Your task to perform on an android device: change notifications settings Image 0: 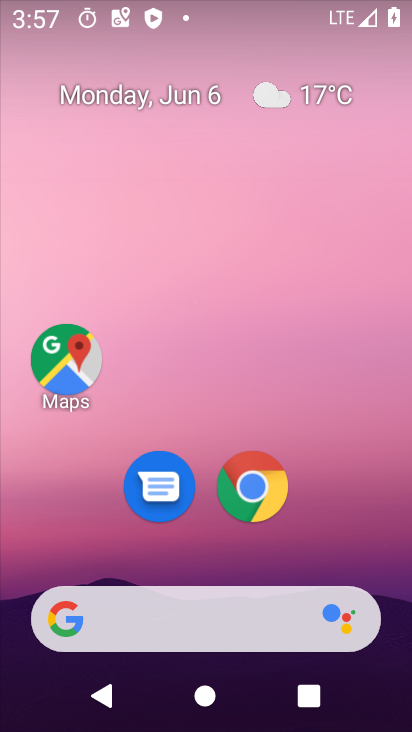
Step 0: drag from (356, 525) to (321, 91)
Your task to perform on an android device: change notifications settings Image 1: 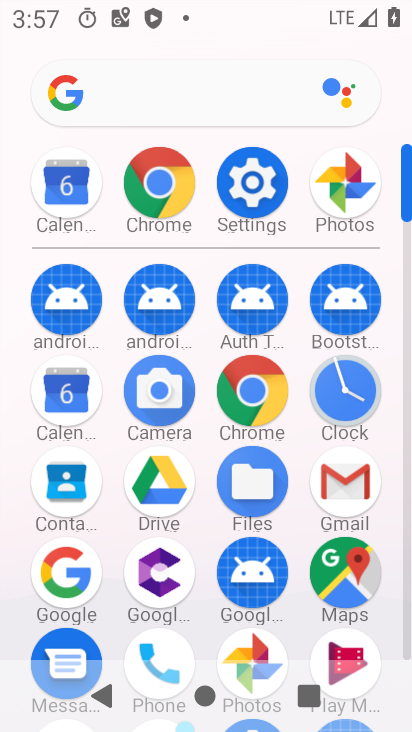
Step 1: click (262, 182)
Your task to perform on an android device: change notifications settings Image 2: 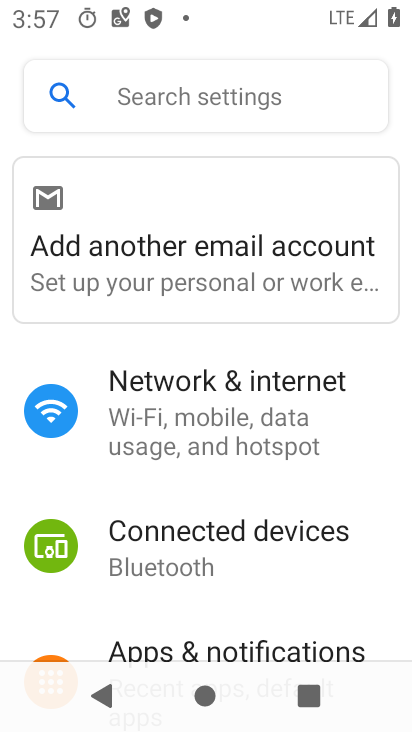
Step 2: drag from (293, 641) to (288, 221)
Your task to perform on an android device: change notifications settings Image 3: 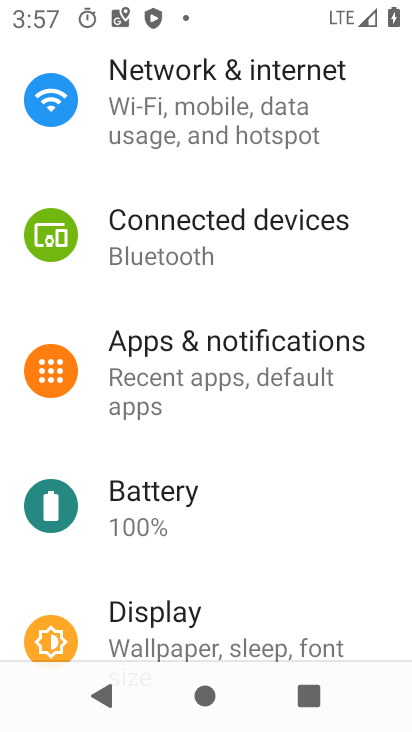
Step 3: click (218, 345)
Your task to perform on an android device: change notifications settings Image 4: 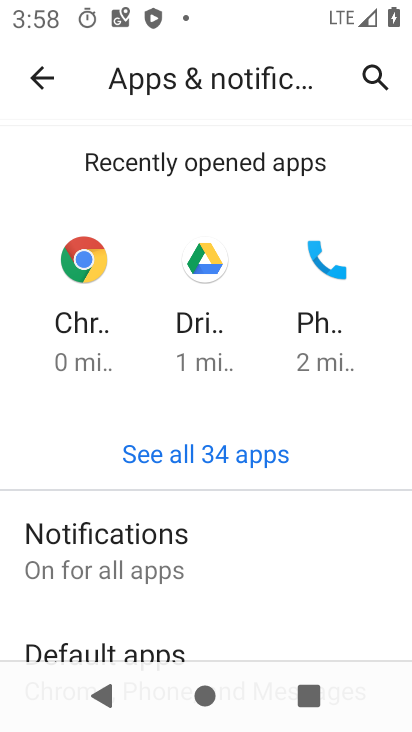
Step 4: click (150, 552)
Your task to perform on an android device: change notifications settings Image 5: 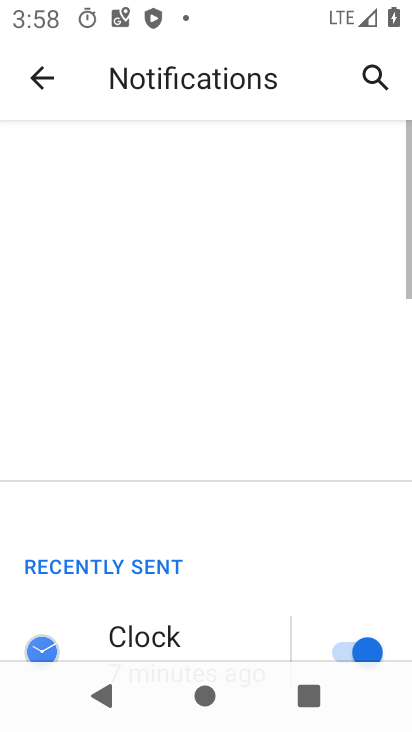
Step 5: drag from (209, 520) to (237, 60)
Your task to perform on an android device: change notifications settings Image 6: 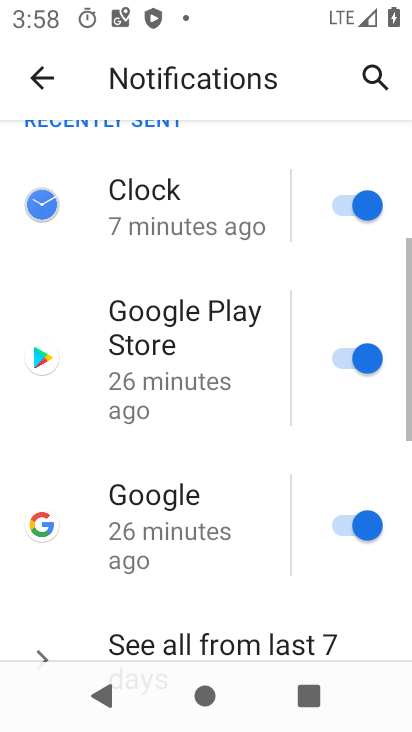
Step 6: drag from (213, 562) to (249, 93)
Your task to perform on an android device: change notifications settings Image 7: 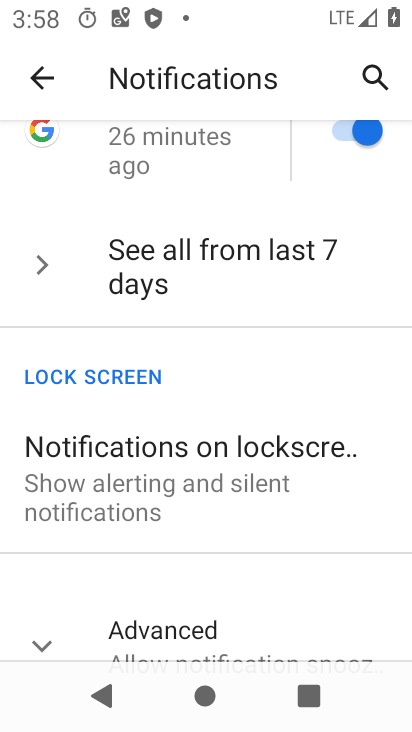
Step 7: drag from (246, 524) to (273, 105)
Your task to perform on an android device: change notifications settings Image 8: 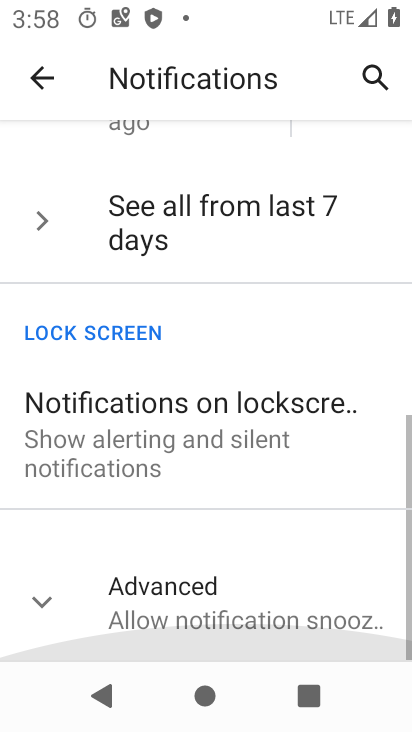
Step 8: click (169, 586)
Your task to perform on an android device: change notifications settings Image 9: 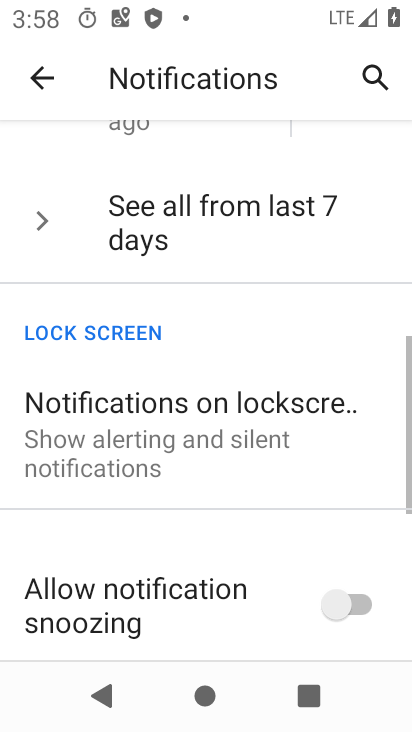
Step 9: click (329, 597)
Your task to perform on an android device: change notifications settings Image 10: 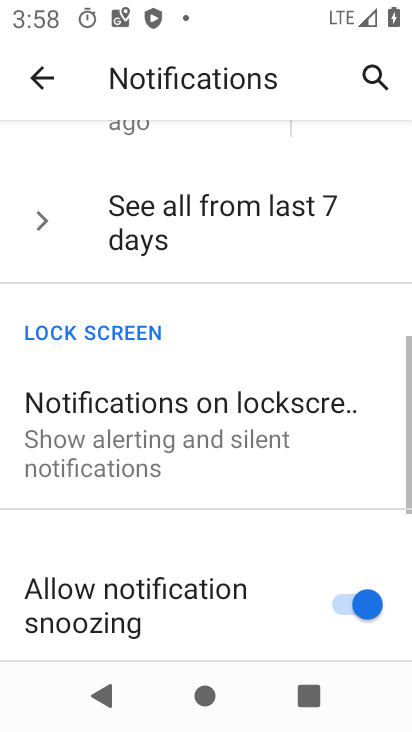
Step 10: task complete